Your task to perform on an android device: Search for Mexican restaurants on Maps Image 0: 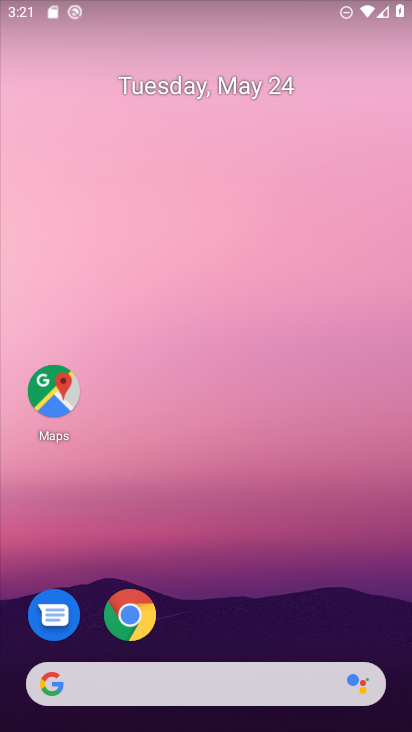
Step 0: drag from (233, 656) to (227, 216)
Your task to perform on an android device: Search for Mexican restaurants on Maps Image 1: 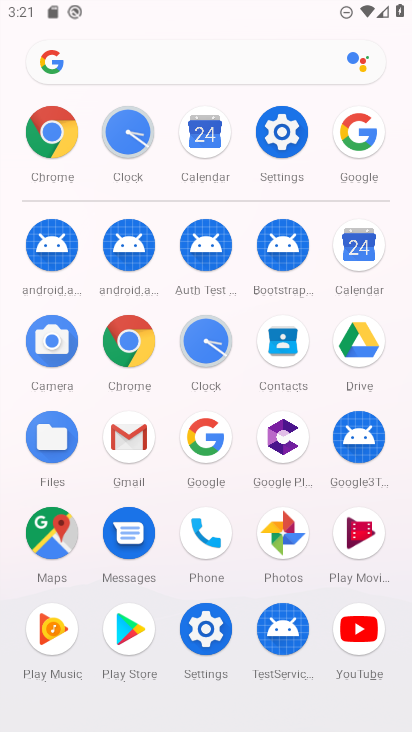
Step 1: click (55, 557)
Your task to perform on an android device: Search for Mexican restaurants on Maps Image 2: 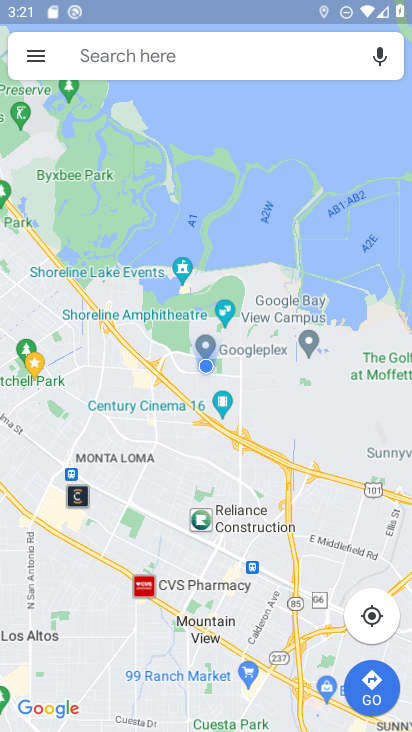
Step 2: click (193, 68)
Your task to perform on an android device: Search for Mexican restaurants on Maps Image 3: 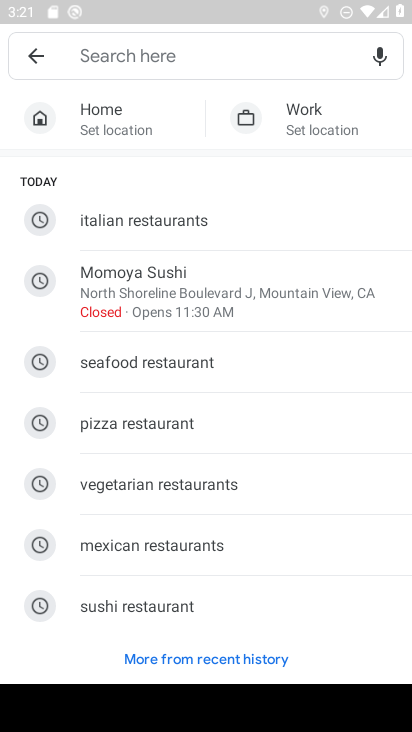
Step 3: click (183, 534)
Your task to perform on an android device: Search for Mexican restaurants on Maps Image 4: 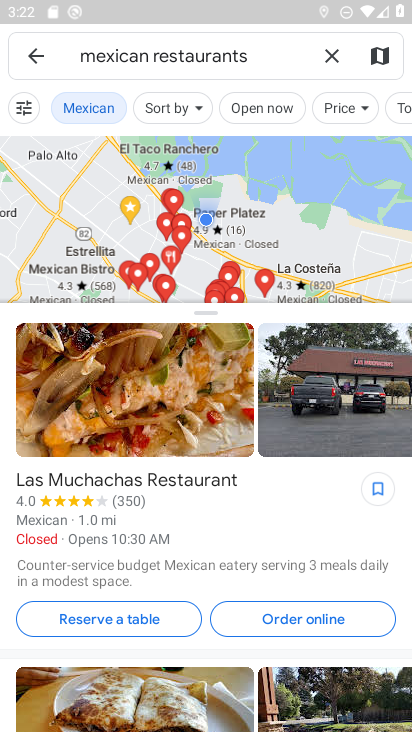
Step 4: task complete